Your task to perform on an android device: open app "McDonald's" (install if not already installed) Image 0: 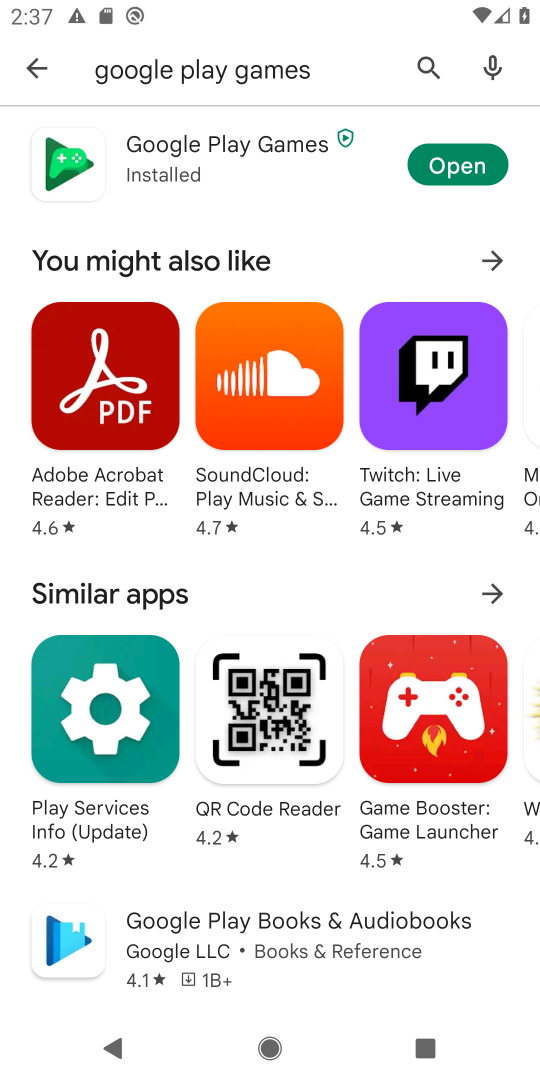
Step 0: click (430, 57)
Your task to perform on an android device: open app "McDonald's" (install if not already installed) Image 1: 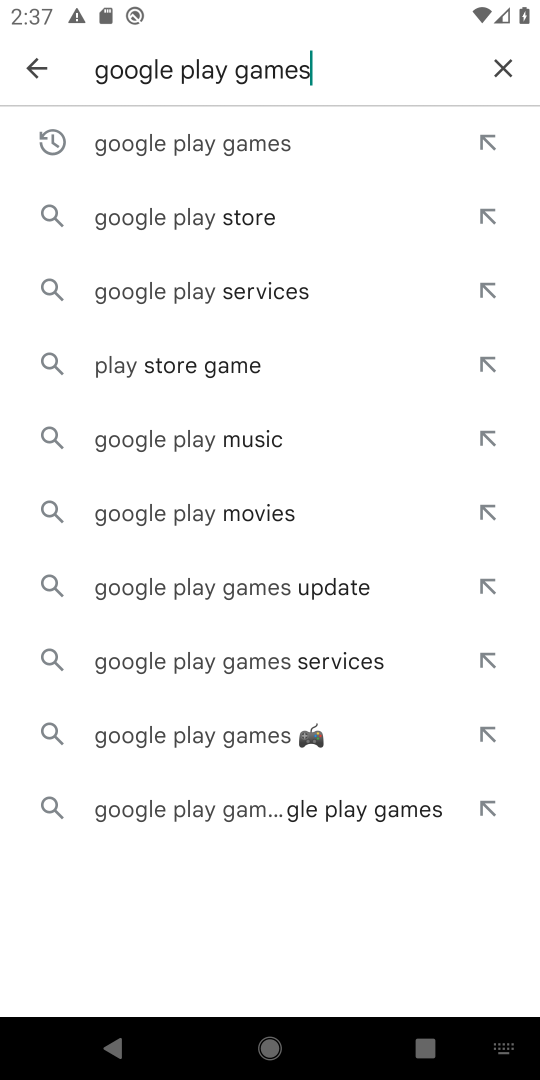
Step 1: click (505, 71)
Your task to perform on an android device: open app "McDonald's" (install if not already installed) Image 2: 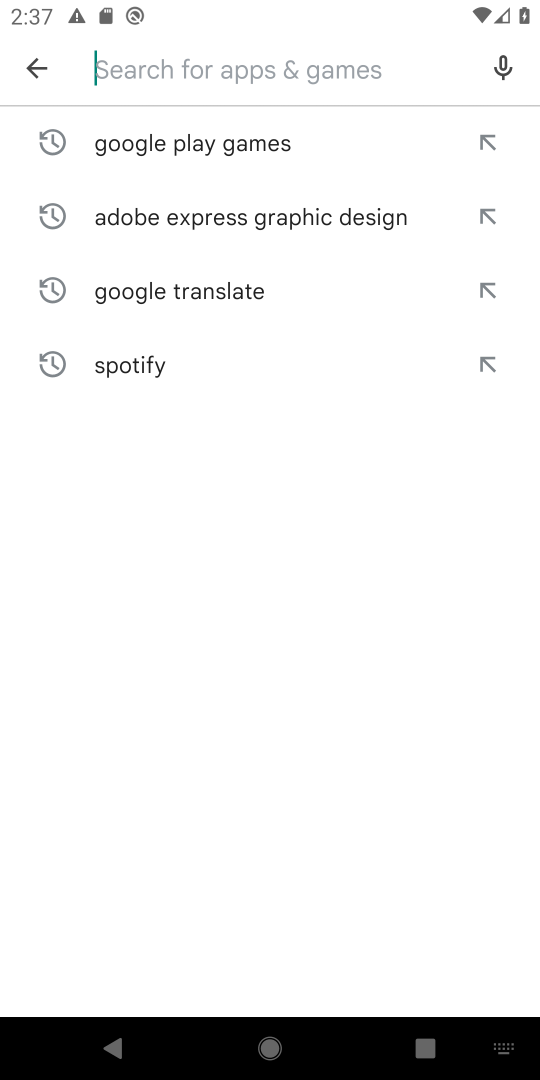
Step 2: type "McDonald's"
Your task to perform on an android device: open app "McDonald's" (install if not already installed) Image 3: 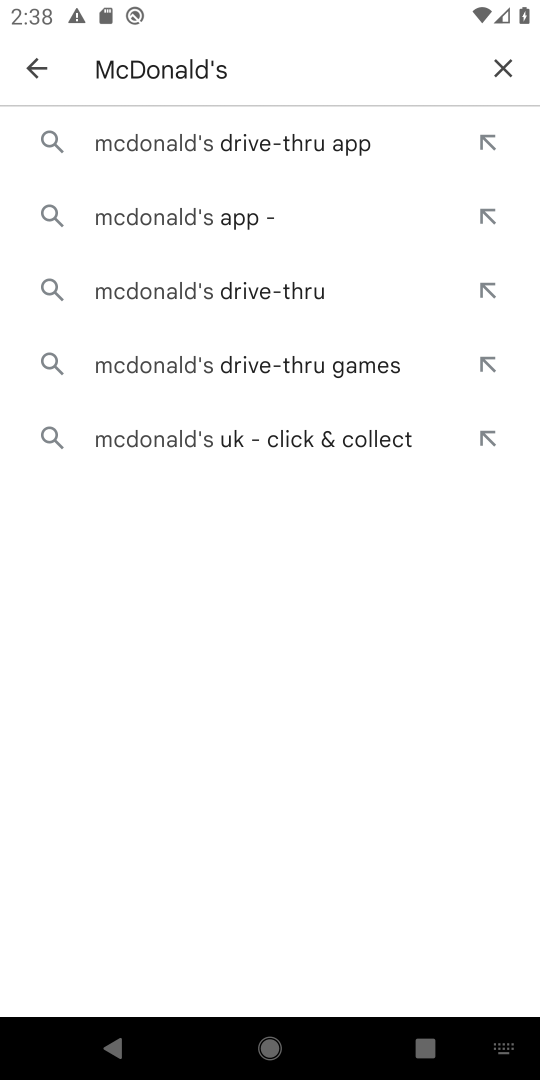
Step 3: click (206, 216)
Your task to perform on an android device: open app "McDonald's" (install if not already installed) Image 4: 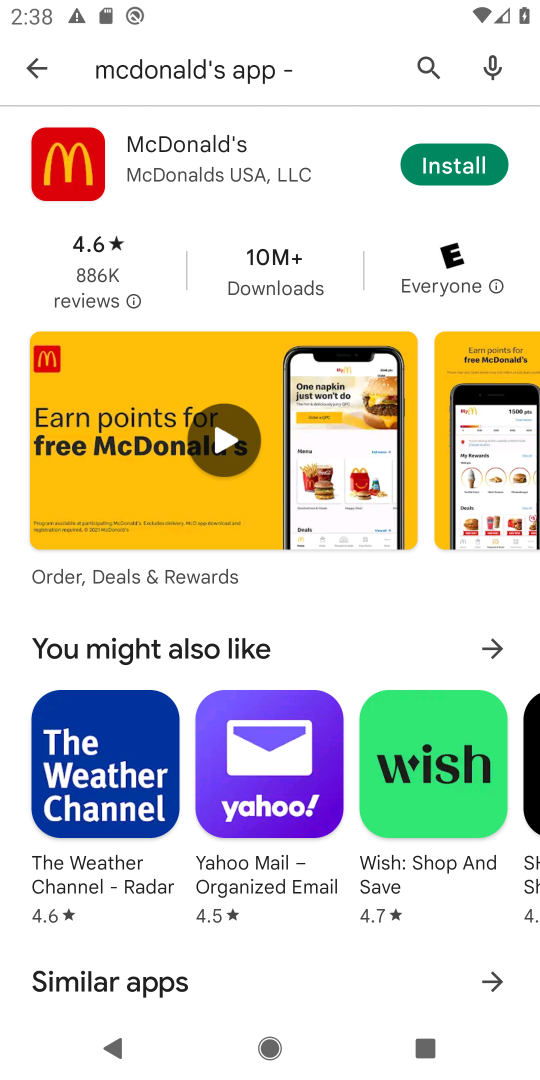
Step 4: click (473, 162)
Your task to perform on an android device: open app "McDonald's" (install if not already installed) Image 5: 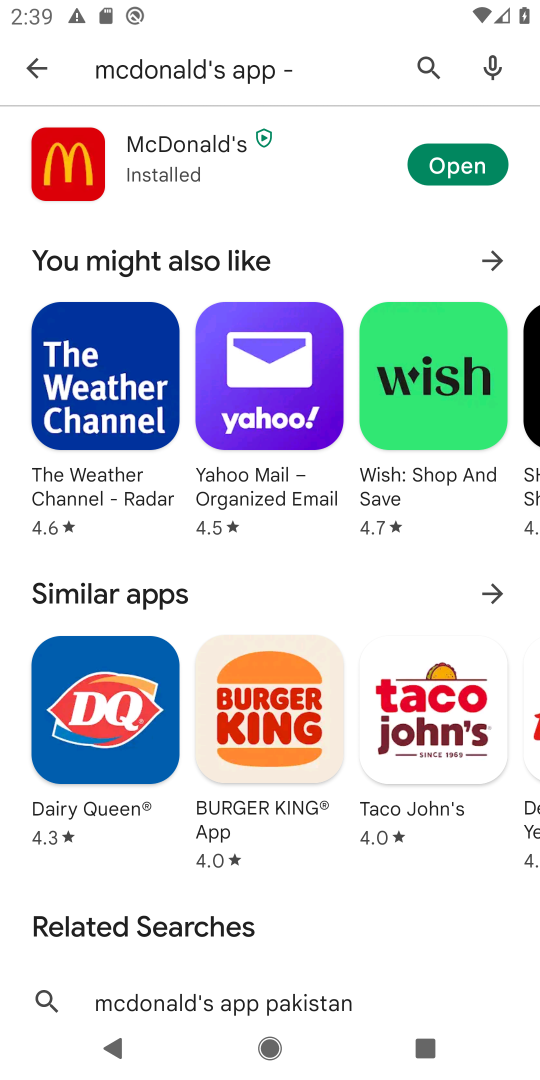
Step 5: click (456, 158)
Your task to perform on an android device: open app "McDonald's" (install if not already installed) Image 6: 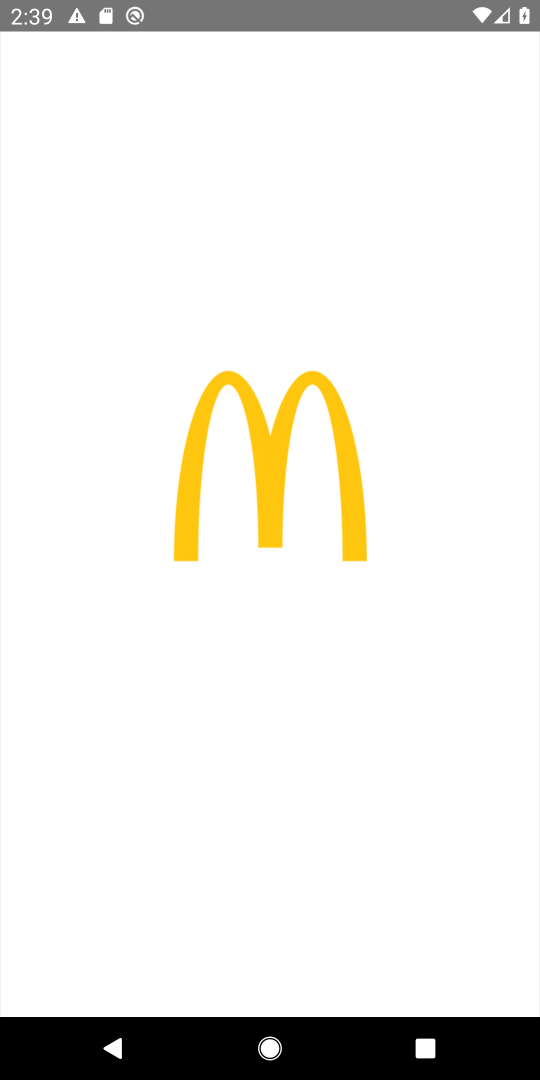
Step 6: task complete